Your task to perform on an android device: turn on improve location accuracy Image 0: 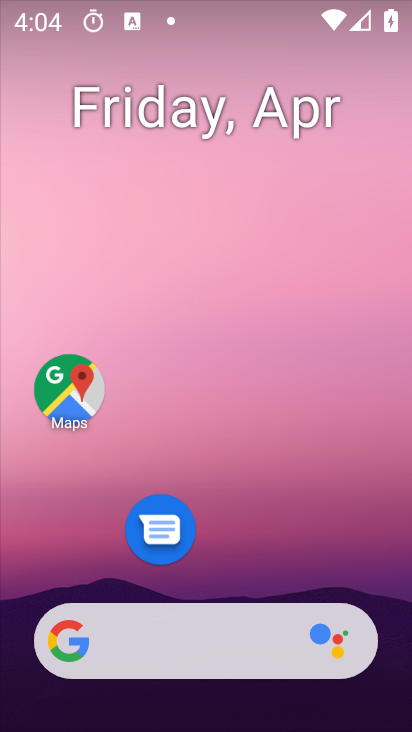
Step 0: drag from (254, 376) to (254, 248)
Your task to perform on an android device: turn on improve location accuracy Image 1: 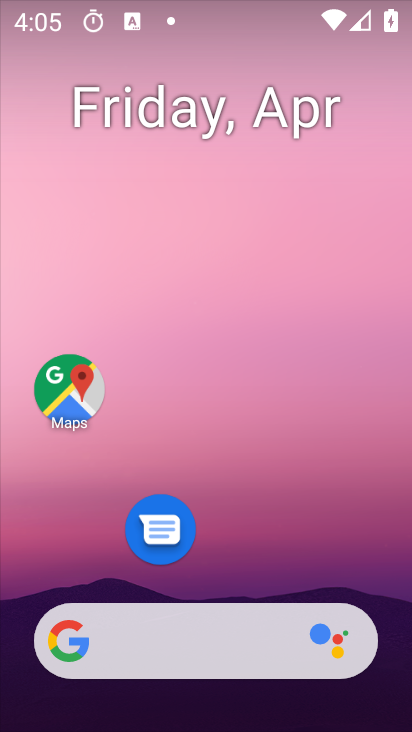
Step 1: drag from (217, 544) to (243, 81)
Your task to perform on an android device: turn on improve location accuracy Image 2: 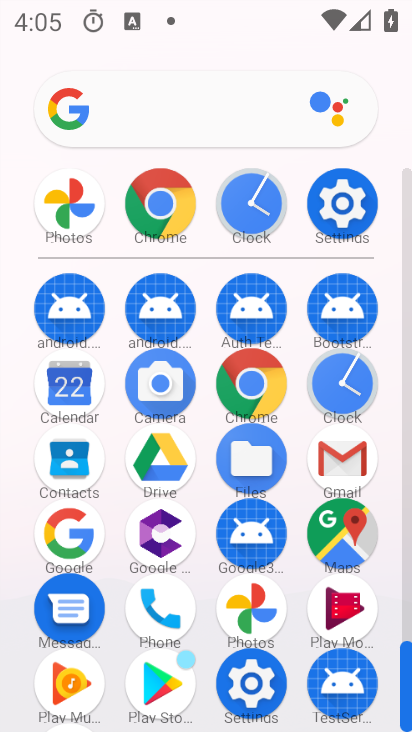
Step 2: drag from (223, 502) to (322, 119)
Your task to perform on an android device: turn on improve location accuracy Image 3: 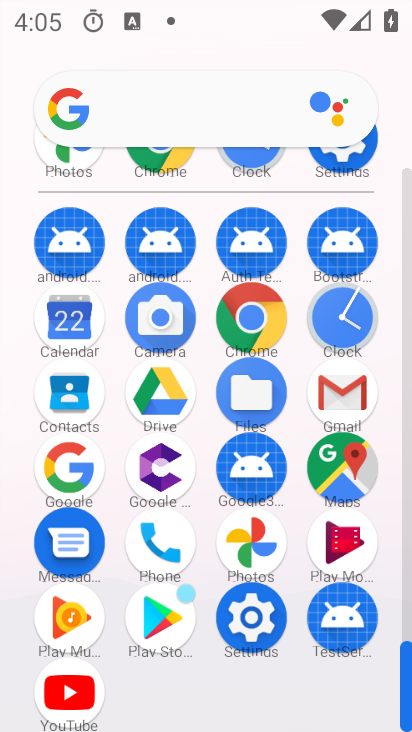
Step 3: click (260, 640)
Your task to perform on an android device: turn on improve location accuracy Image 4: 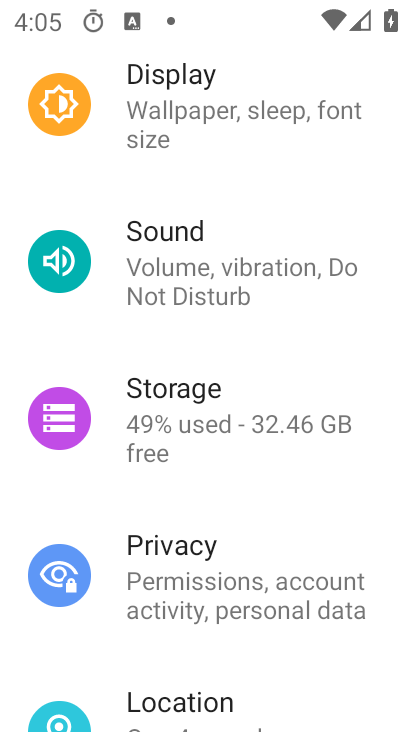
Step 4: drag from (190, 536) to (205, 255)
Your task to perform on an android device: turn on improve location accuracy Image 5: 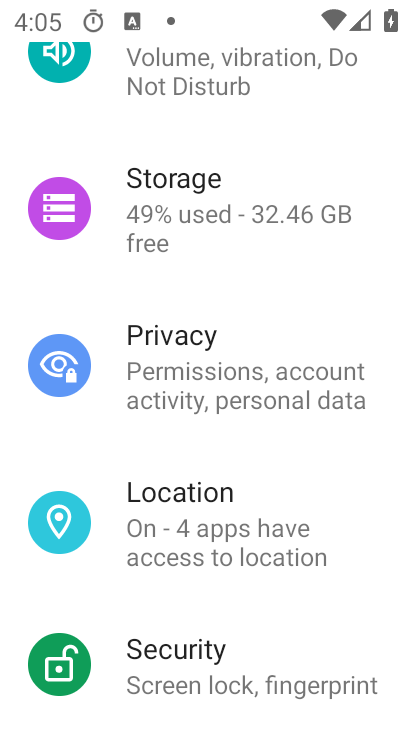
Step 5: click (214, 532)
Your task to perform on an android device: turn on improve location accuracy Image 6: 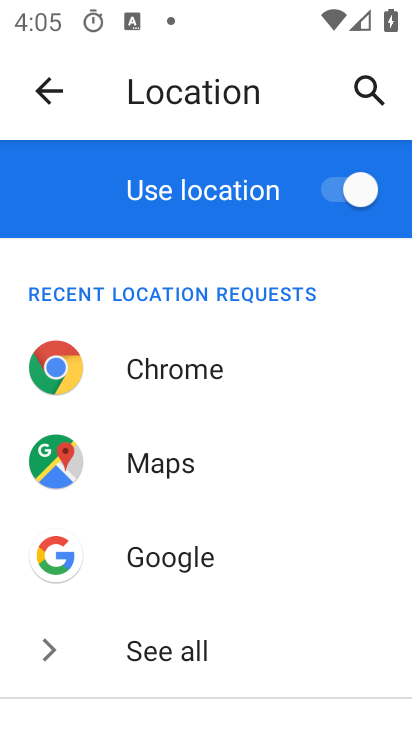
Step 6: click (202, 532)
Your task to perform on an android device: turn on improve location accuracy Image 7: 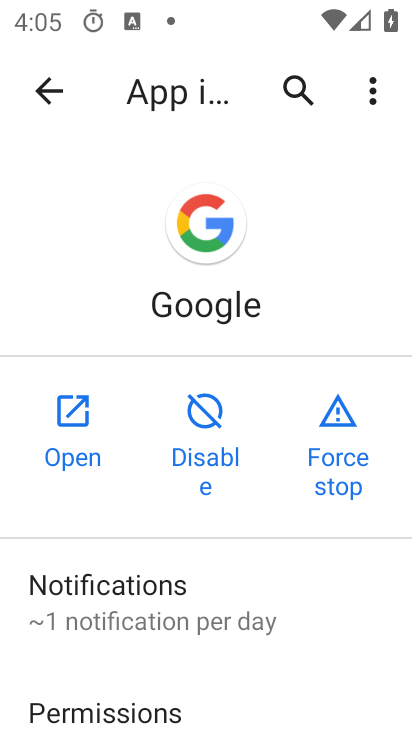
Step 7: click (60, 100)
Your task to perform on an android device: turn on improve location accuracy Image 8: 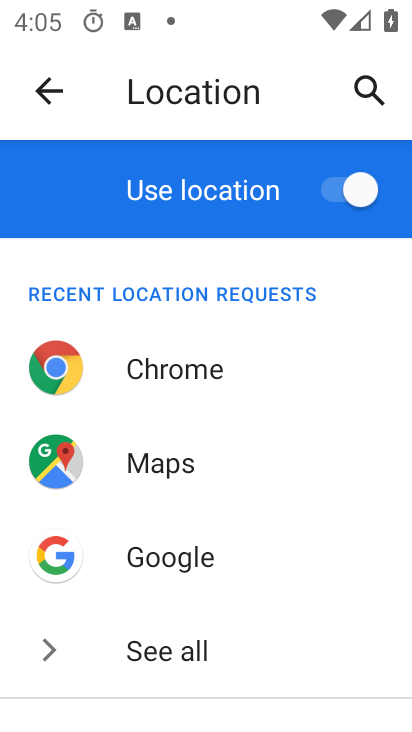
Step 8: drag from (239, 594) to (310, 139)
Your task to perform on an android device: turn on improve location accuracy Image 9: 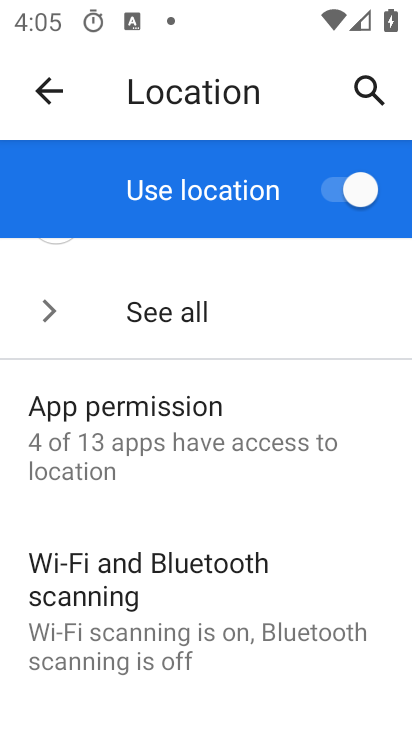
Step 9: drag from (215, 503) to (262, 162)
Your task to perform on an android device: turn on improve location accuracy Image 10: 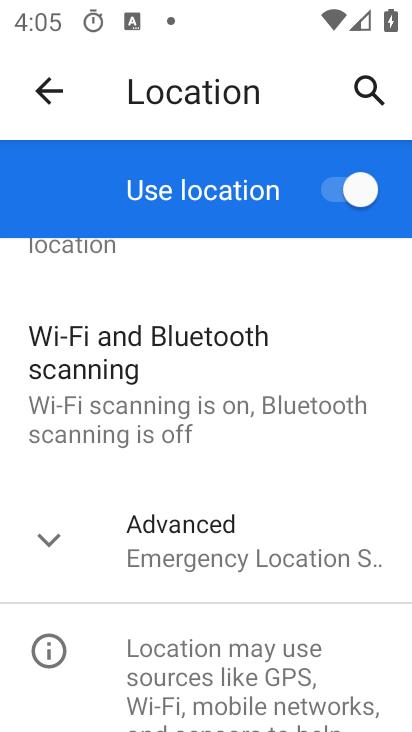
Step 10: click (211, 555)
Your task to perform on an android device: turn on improve location accuracy Image 11: 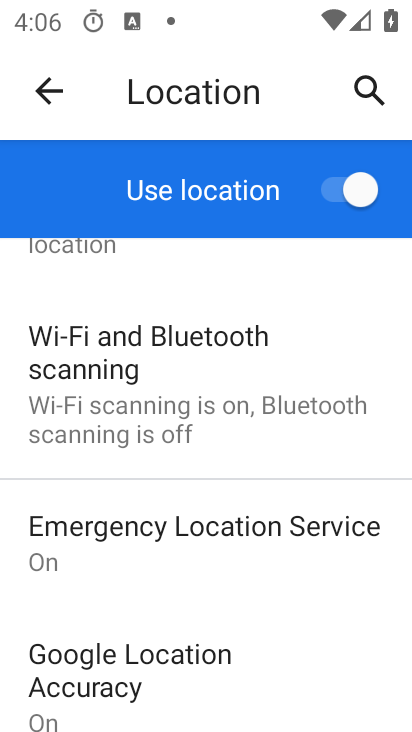
Step 11: drag from (226, 501) to (269, 299)
Your task to perform on an android device: turn on improve location accuracy Image 12: 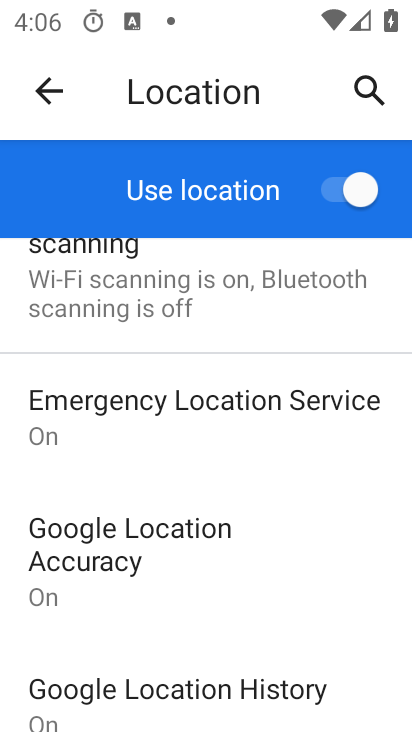
Step 12: click (256, 557)
Your task to perform on an android device: turn on improve location accuracy Image 13: 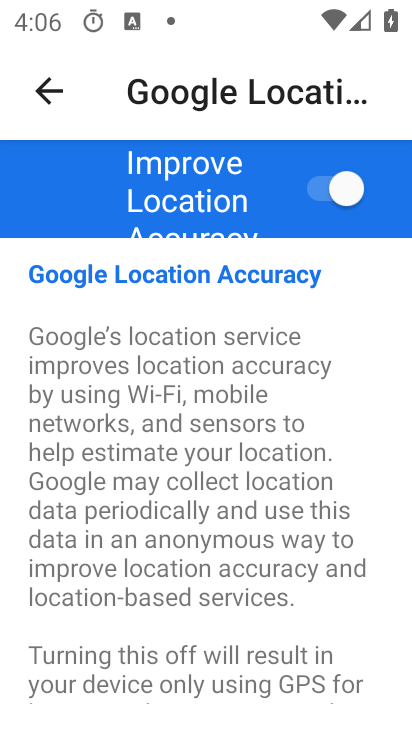
Step 13: task complete